Your task to perform on an android device: Search for the best rated book on Goodreads. Image 0: 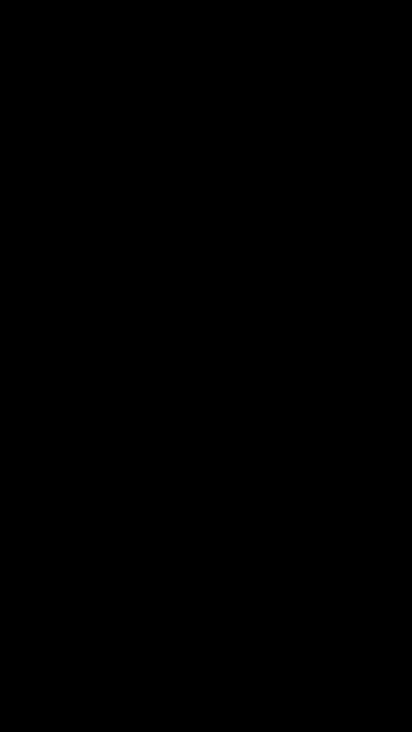
Step 0: press back button
Your task to perform on an android device: Search for the best rated book on Goodreads. Image 1: 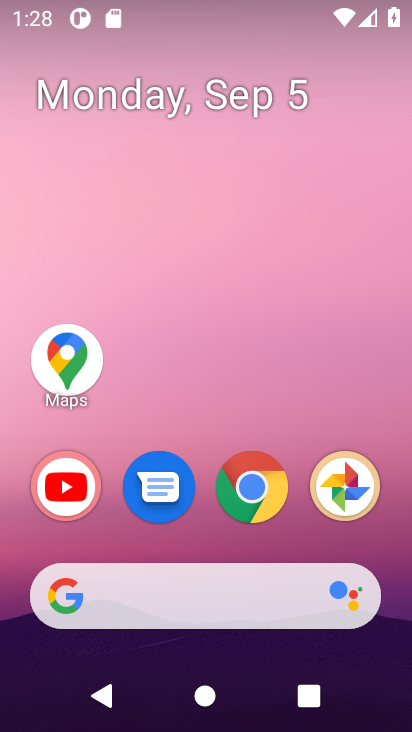
Step 1: click (242, 500)
Your task to perform on an android device: Search for the best rated book on Goodreads. Image 2: 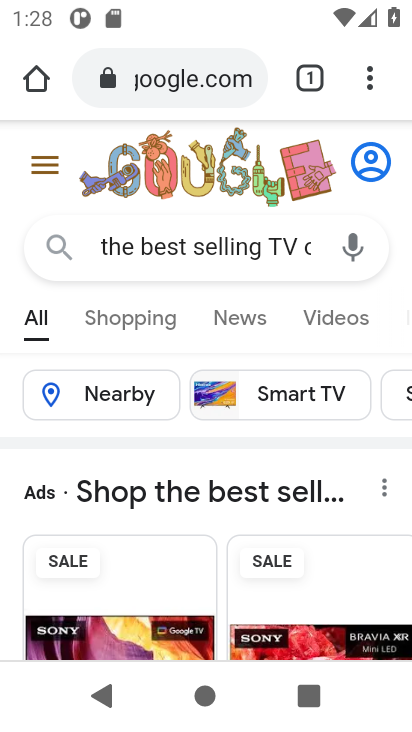
Step 2: click (161, 83)
Your task to perform on an android device: Search for the best rated book on Goodreads. Image 3: 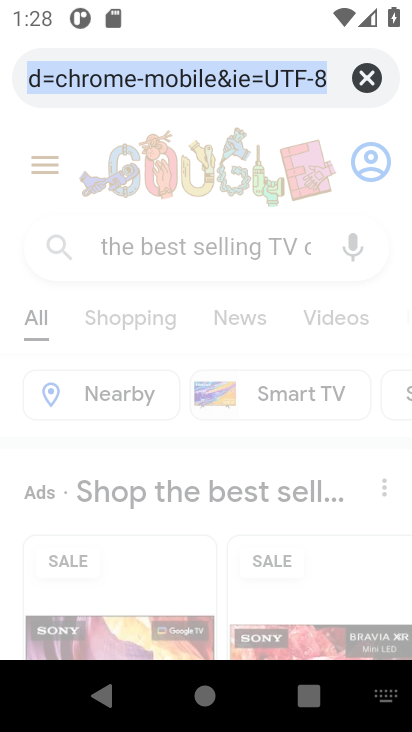
Step 3: click (371, 77)
Your task to perform on an android device: Search for the best rated book on Goodreads. Image 4: 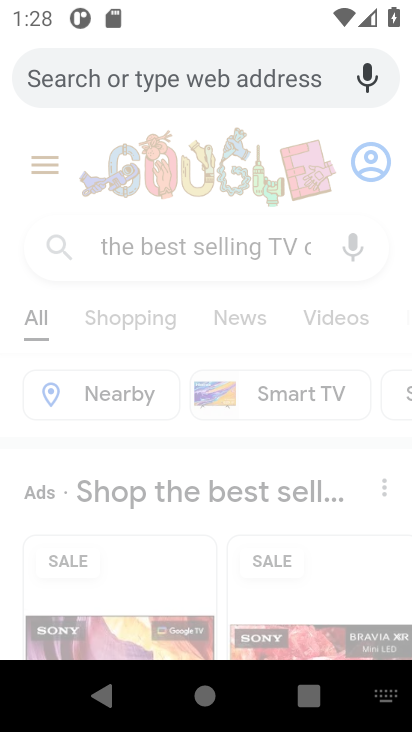
Step 4: type " the best rated book on Goodreads."
Your task to perform on an android device: Search for the best rated book on Goodreads. Image 5: 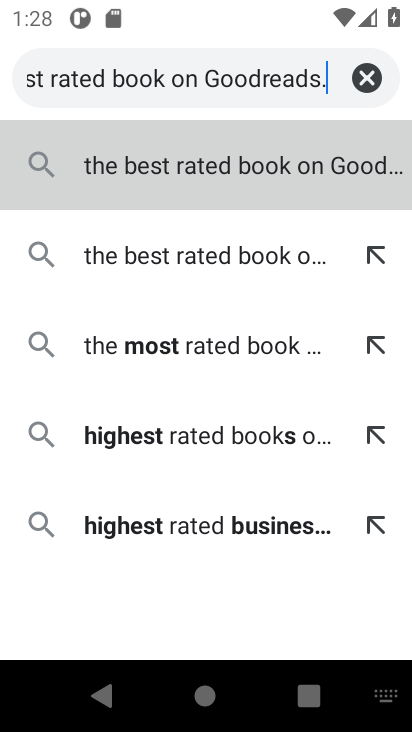
Step 5: click (234, 179)
Your task to perform on an android device: Search for the best rated book on Goodreads. Image 6: 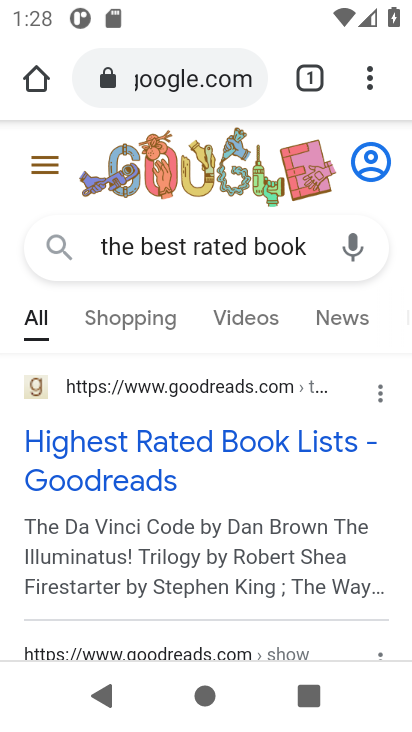
Step 6: task complete